Your task to perform on an android device: open app "Viber Messenger" (install if not already installed) and enter user name: "blameless@icloud.com" and password: "Yoknapatawpha" Image 0: 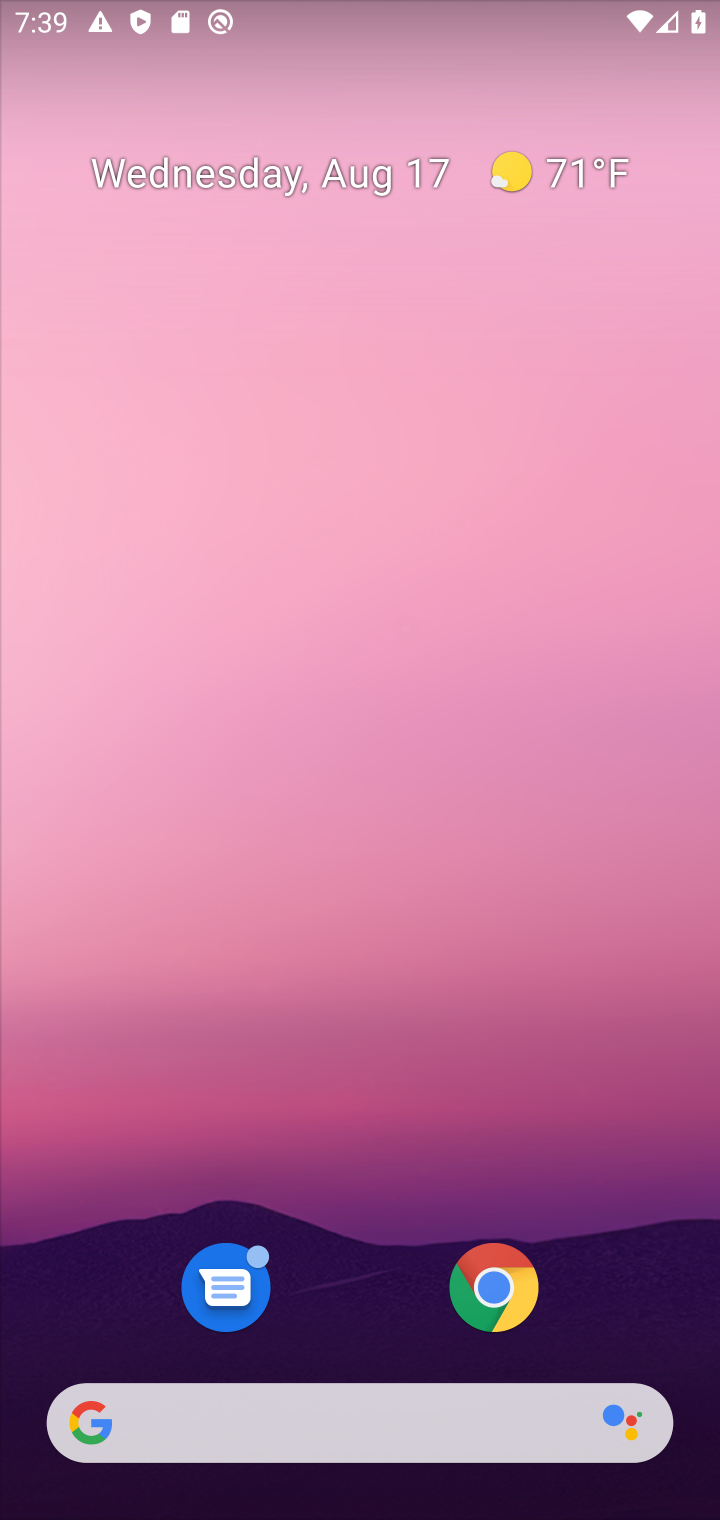
Step 0: drag from (401, 1408) to (377, 325)
Your task to perform on an android device: open app "Viber Messenger" (install if not already installed) and enter user name: "blameless@icloud.com" and password: "Yoknapatawpha" Image 1: 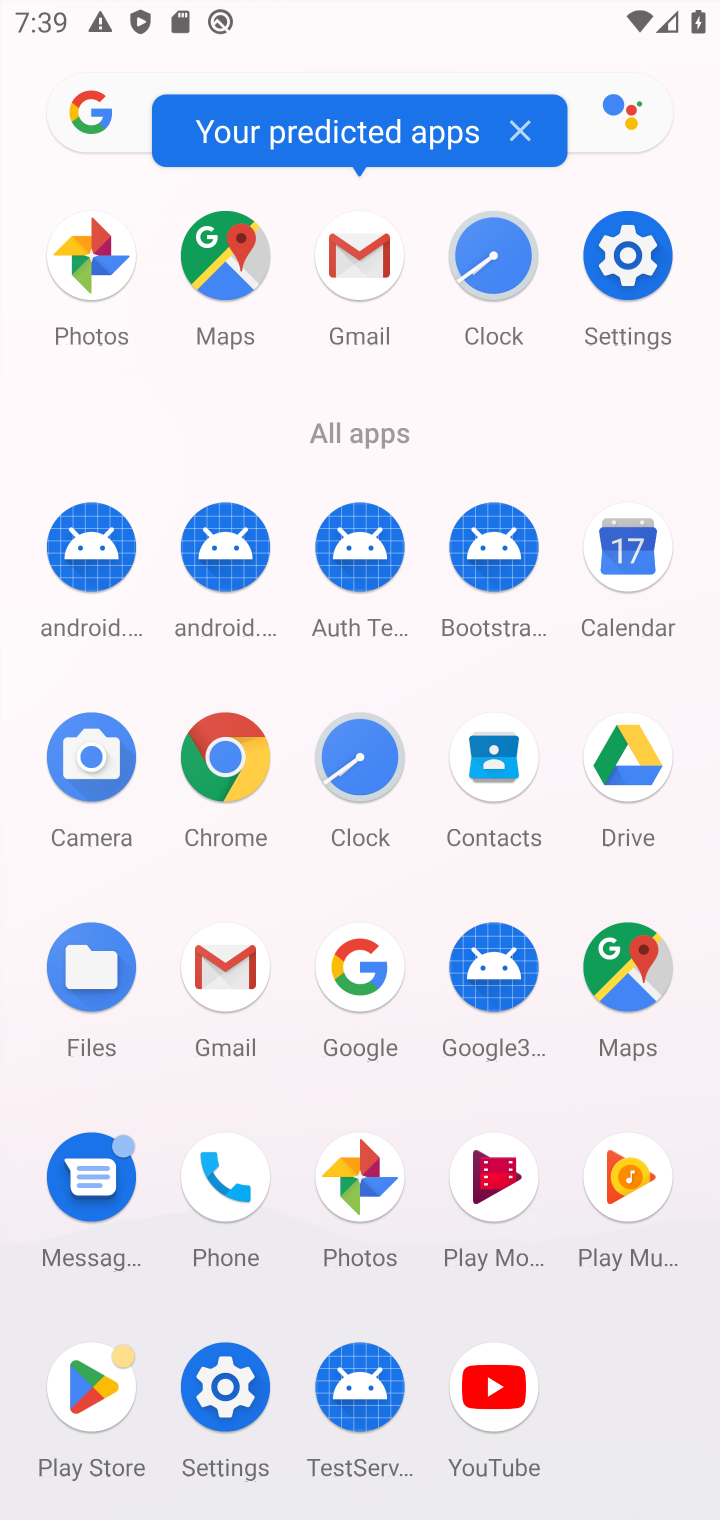
Step 1: click (62, 1352)
Your task to perform on an android device: open app "Viber Messenger" (install if not already installed) and enter user name: "blameless@icloud.com" and password: "Yoknapatawpha" Image 2: 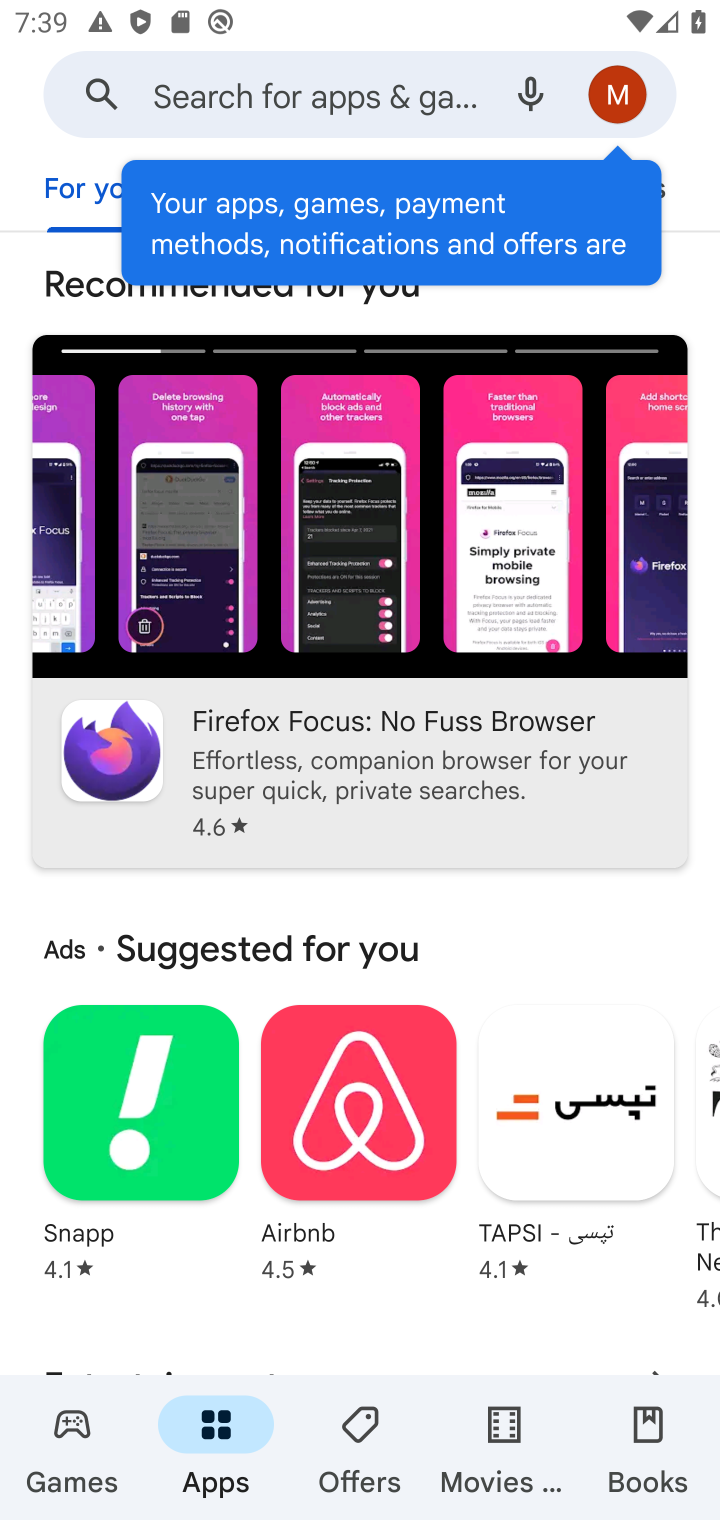
Step 2: click (327, 66)
Your task to perform on an android device: open app "Viber Messenger" (install if not already installed) and enter user name: "blameless@icloud.com" and password: "Yoknapatawpha" Image 3: 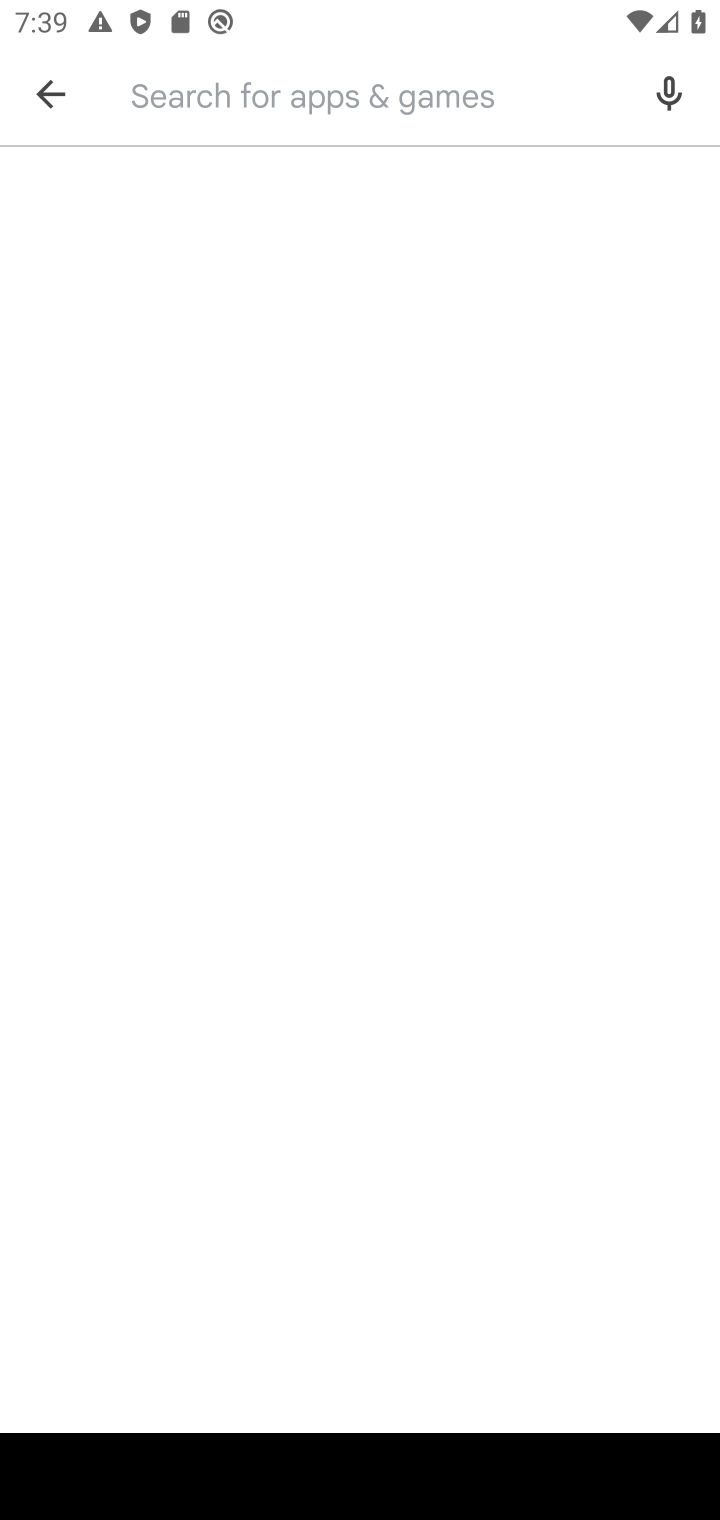
Step 3: type "Viber Messenger"
Your task to perform on an android device: open app "Viber Messenger" (install if not already installed) and enter user name: "blameless@icloud.com" and password: "Yoknapatawpha" Image 4: 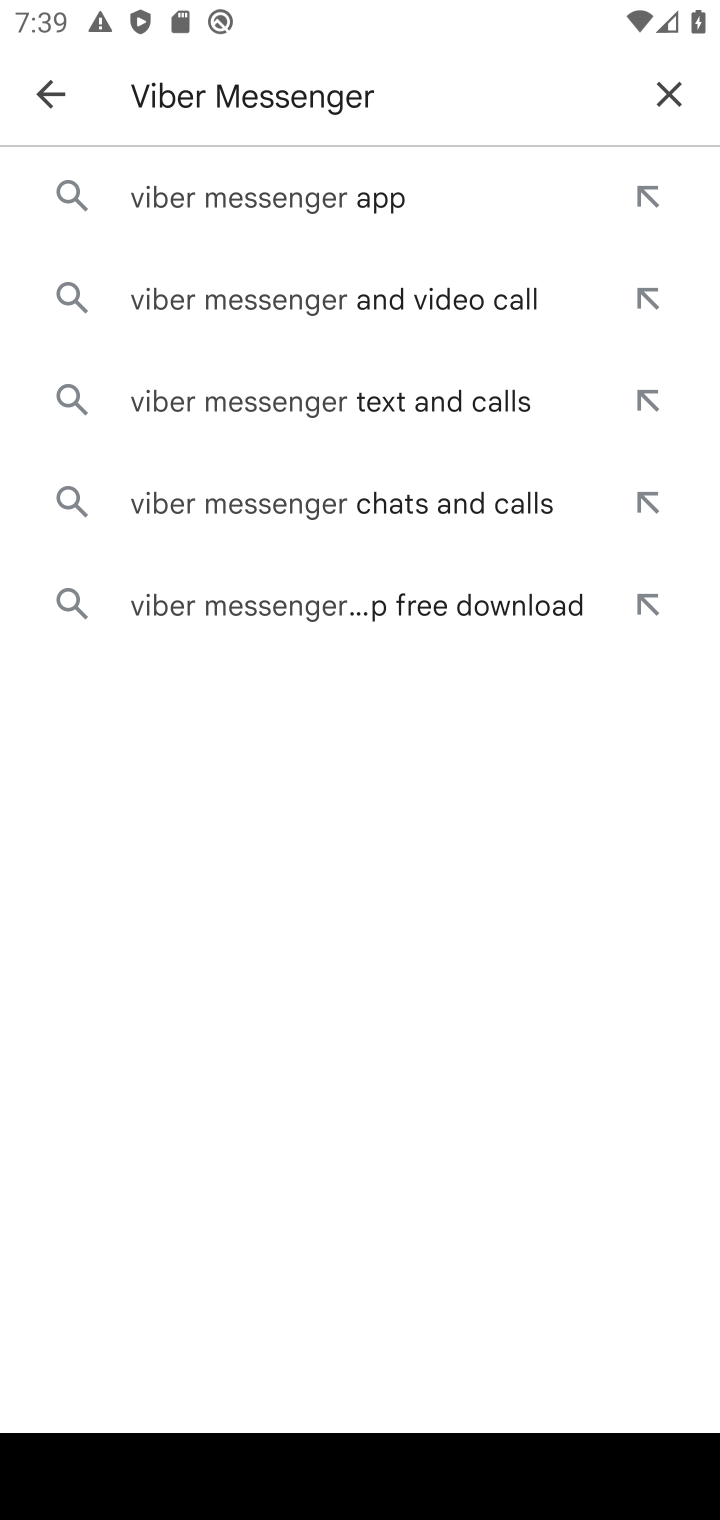
Step 4: click (241, 207)
Your task to perform on an android device: open app "Viber Messenger" (install if not already installed) and enter user name: "blameless@icloud.com" and password: "Yoknapatawpha" Image 5: 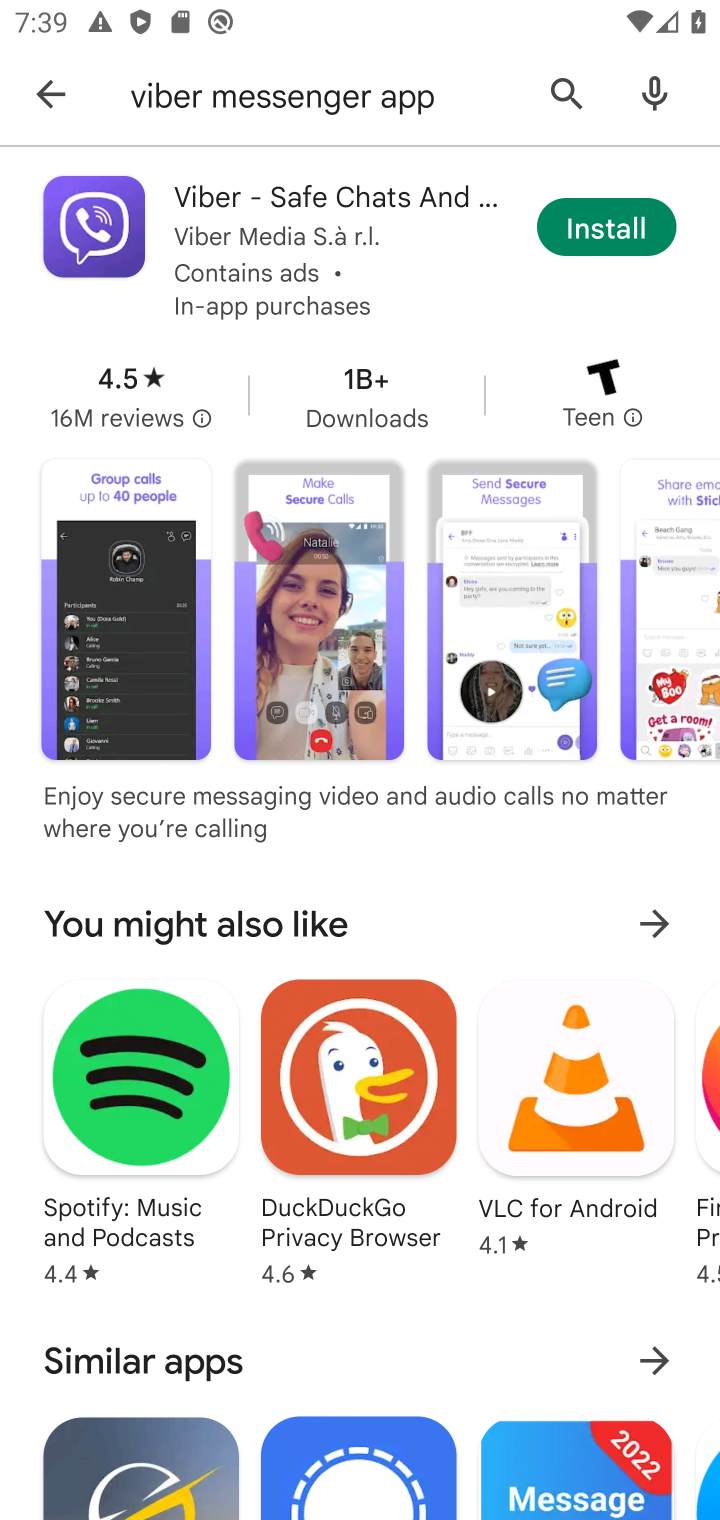
Step 5: click (610, 232)
Your task to perform on an android device: open app "Viber Messenger" (install if not already installed) and enter user name: "blameless@icloud.com" and password: "Yoknapatawpha" Image 6: 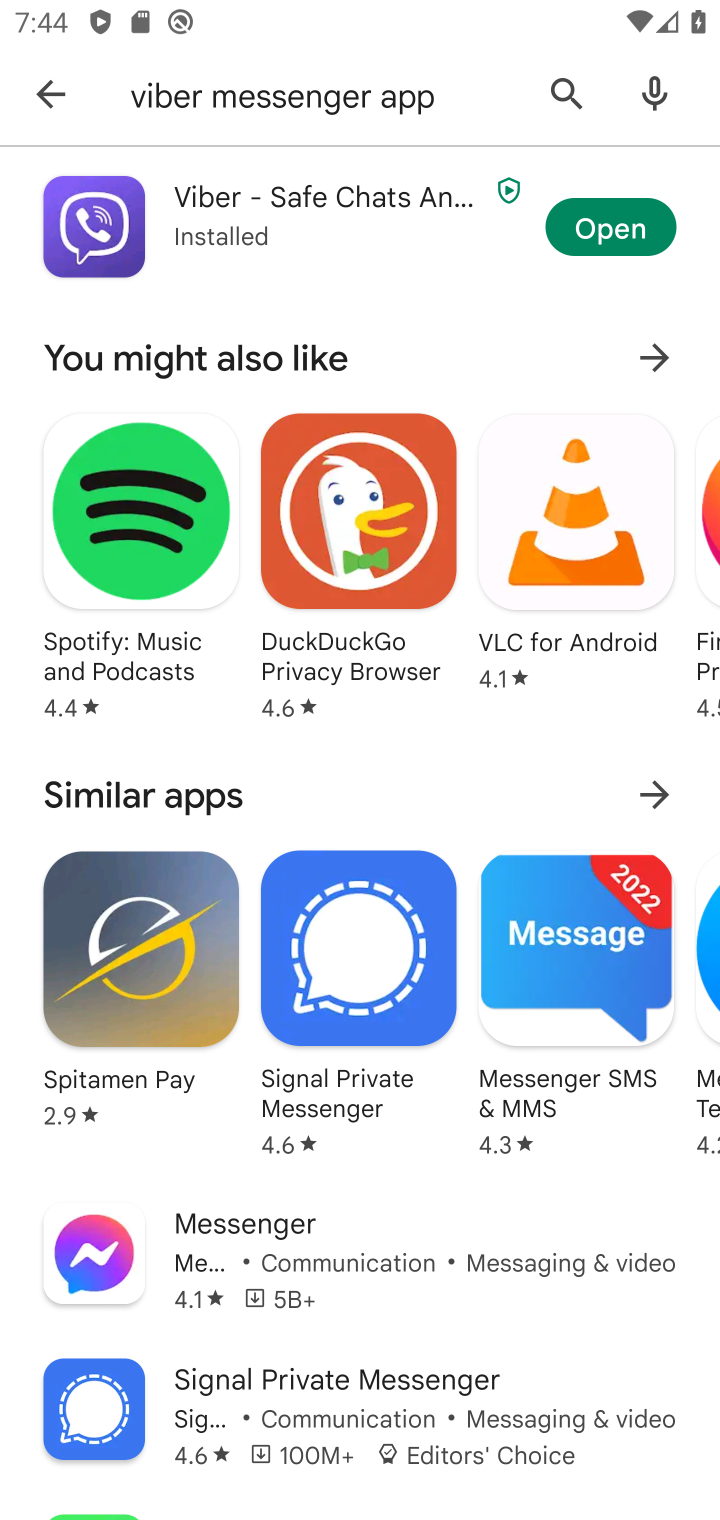
Step 6: click (613, 229)
Your task to perform on an android device: open app "Viber Messenger" (install if not already installed) and enter user name: "blameless@icloud.com" and password: "Yoknapatawpha" Image 7: 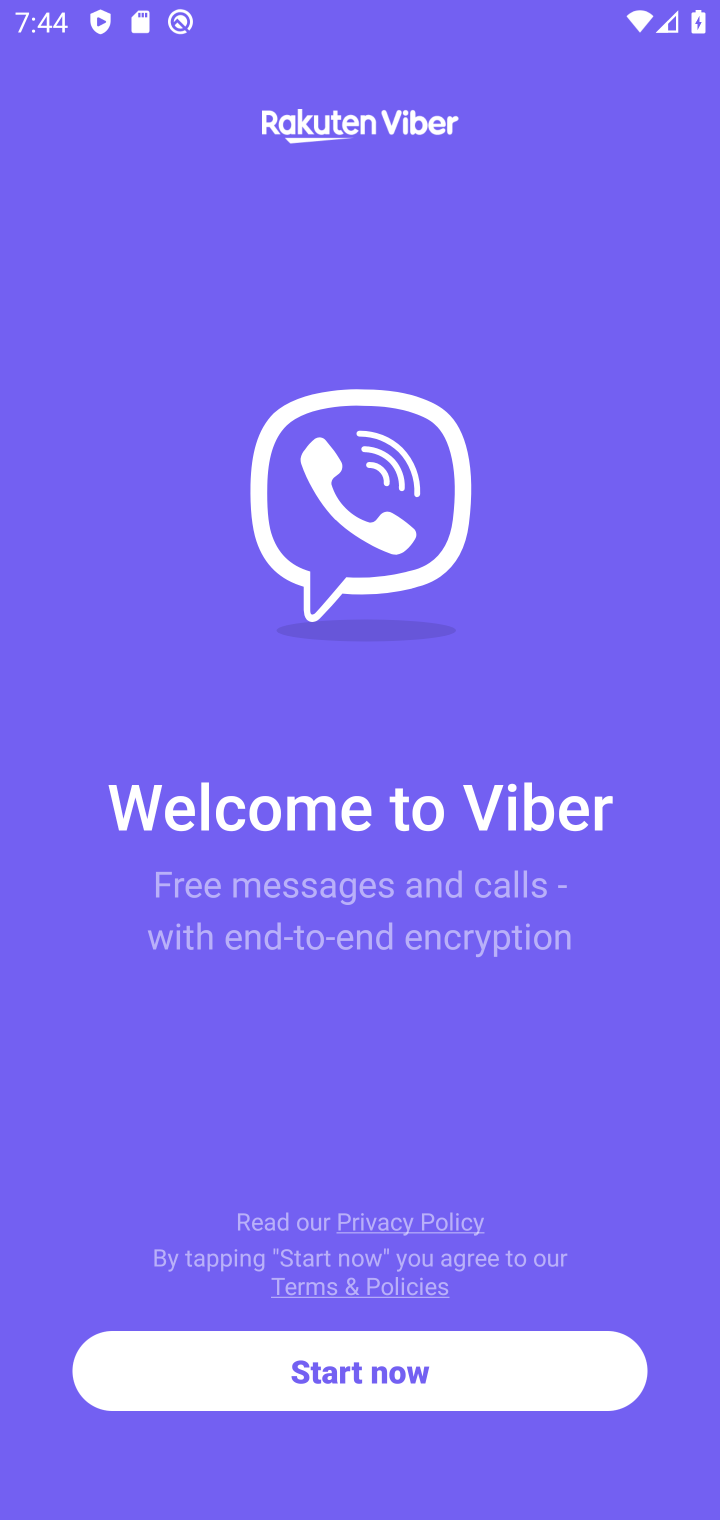
Step 7: click (305, 1385)
Your task to perform on an android device: open app "Viber Messenger" (install if not already installed) and enter user name: "blameless@icloud.com" and password: "Yoknapatawpha" Image 8: 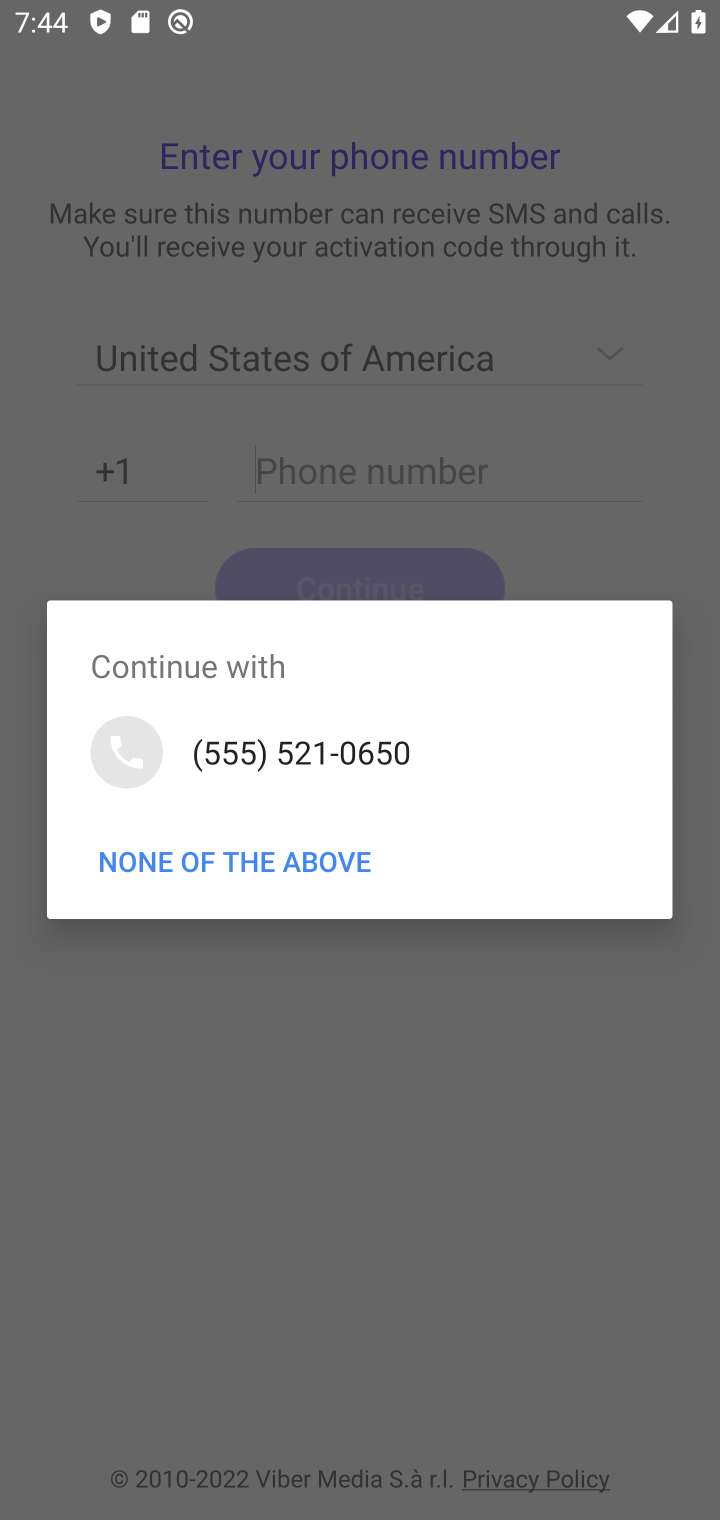
Step 8: task complete